Your task to perform on an android device: change notifications settings Image 0: 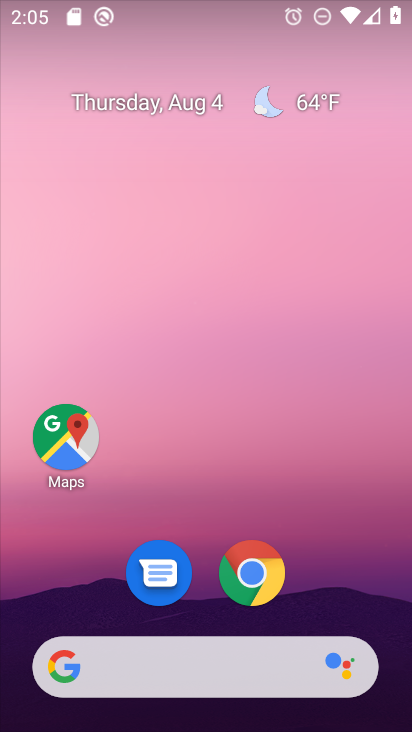
Step 0: drag from (335, 576) to (316, 131)
Your task to perform on an android device: change notifications settings Image 1: 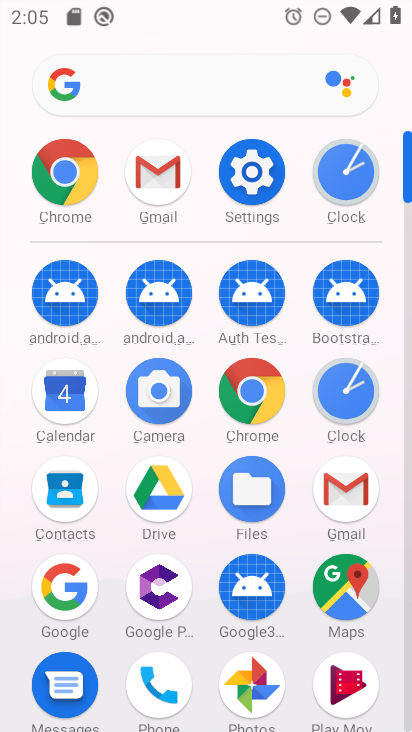
Step 1: click (254, 173)
Your task to perform on an android device: change notifications settings Image 2: 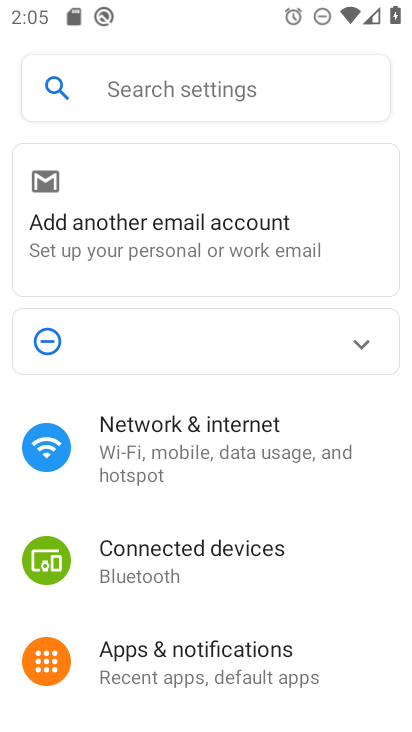
Step 2: drag from (262, 610) to (308, 220)
Your task to perform on an android device: change notifications settings Image 3: 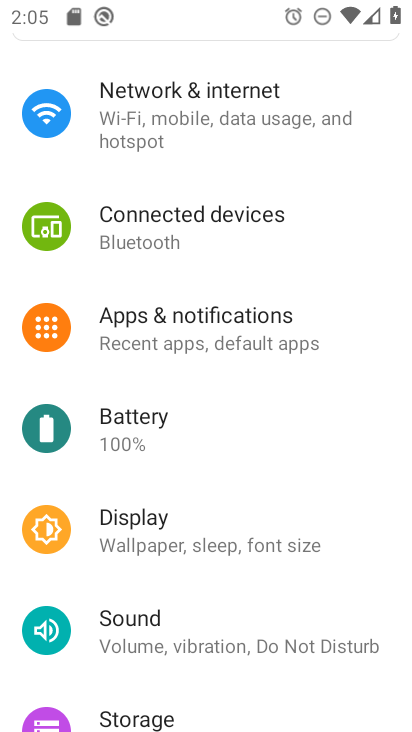
Step 3: click (246, 325)
Your task to perform on an android device: change notifications settings Image 4: 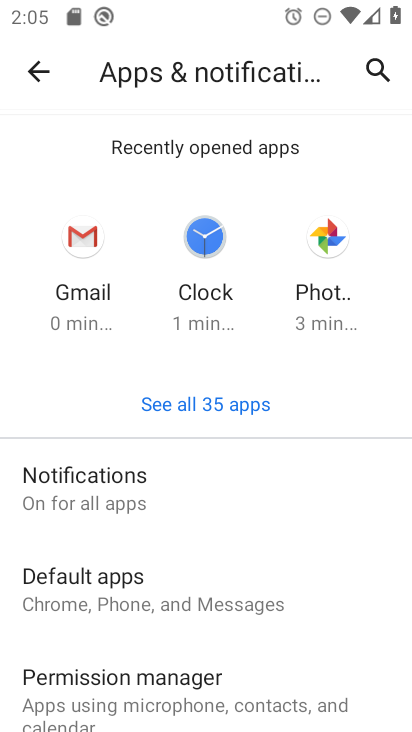
Step 4: click (64, 502)
Your task to perform on an android device: change notifications settings Image 5: 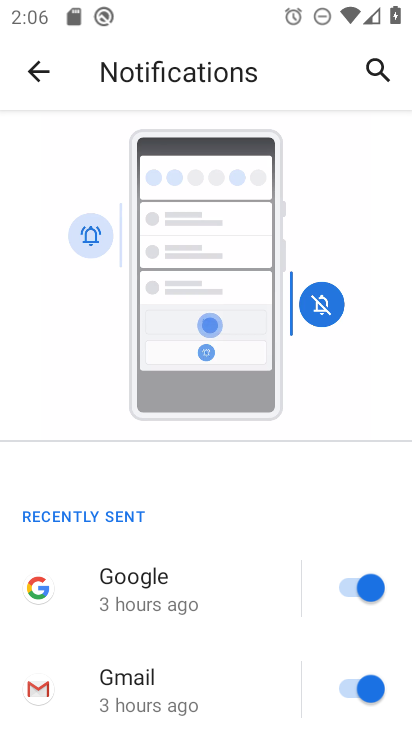
Step 5: drag from (202, 606) to (219, 281)
Your task to perform on an android device: change notifications settings Image 6: 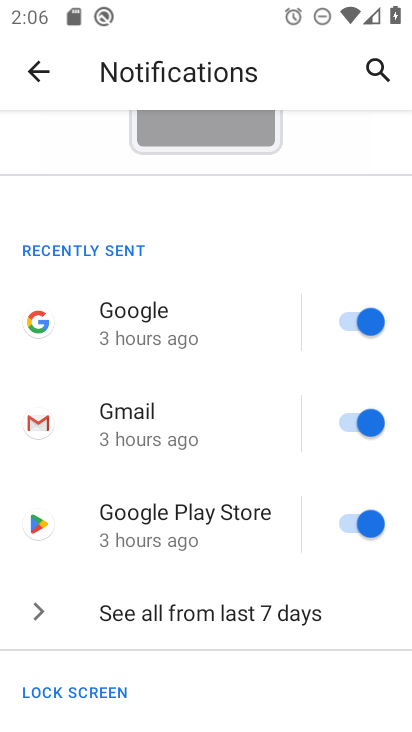
Step 6: drag from (308, 237) to (263, 642)
Your task to perform on an android device: change notifications settings Image 7: 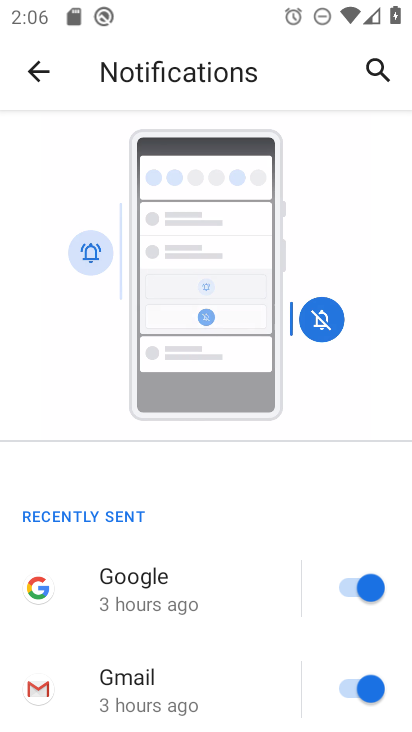
Step 7: click (328, 312)
Your task to perform on an android device: change notifications settings Image 8: 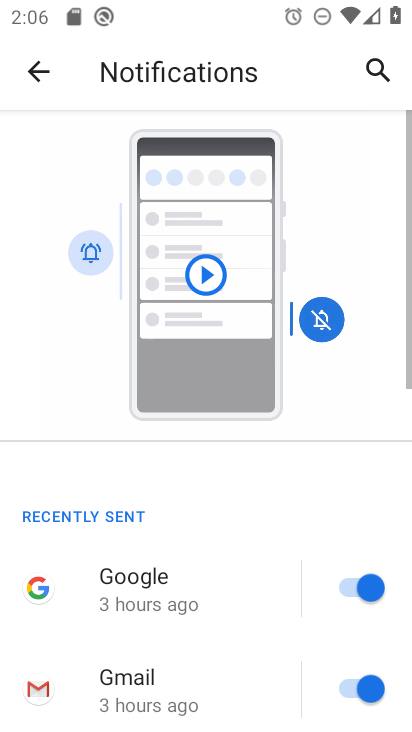
Step 8: click (236, 282)
Your task to perform on an android device: change notifications settings Image 9: 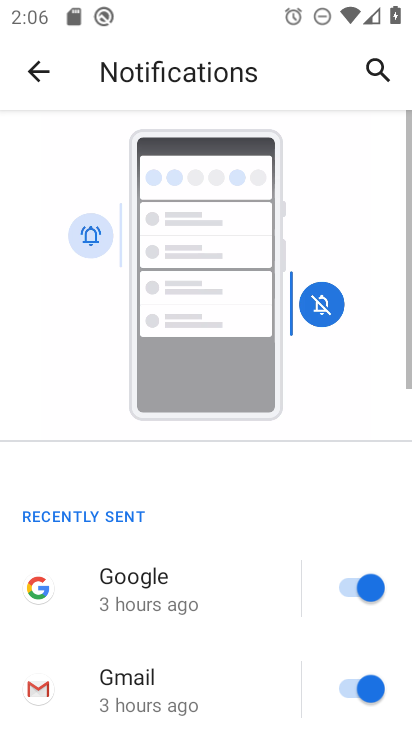
Step 9: click (84, 253)
Your task to perform on an android device: change notifications settings Image 10: 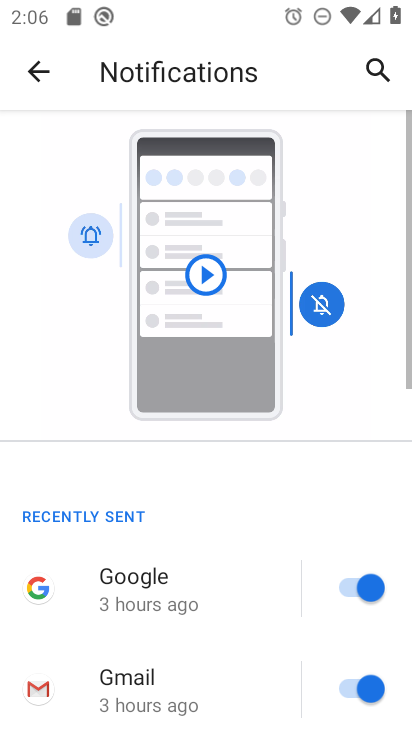
Step 10: click (169, 343)
Your task to perform on an android device: change notifications settings Image 11: 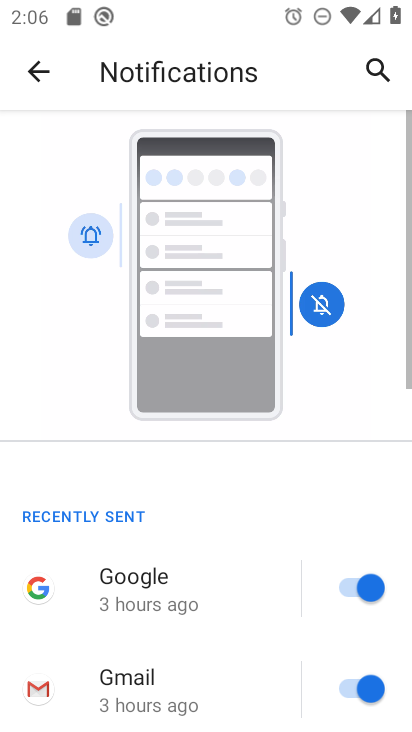
Step 11: task complete